Your task to perform on an android device: all mails in gmail Image 0: 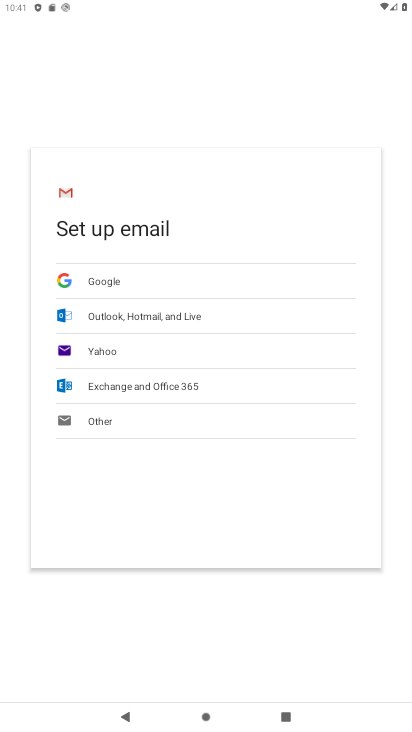
Step 0: press home button
Your task to perform on an android device: all mails in gmail Image 1: 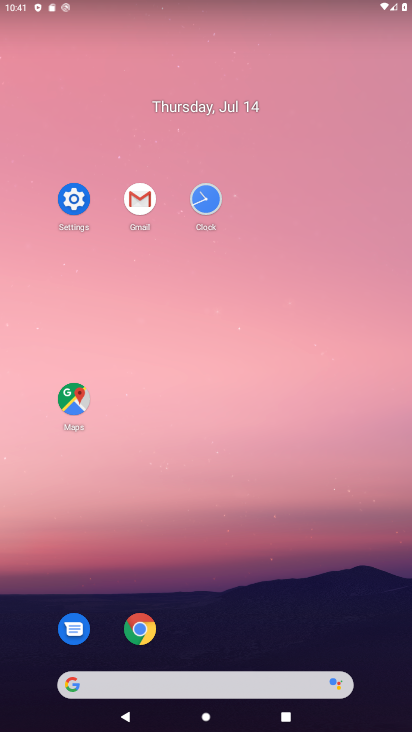
Step 1: click (131, 195)
Your task to perform on an android device: all mails in gmail Image 2: 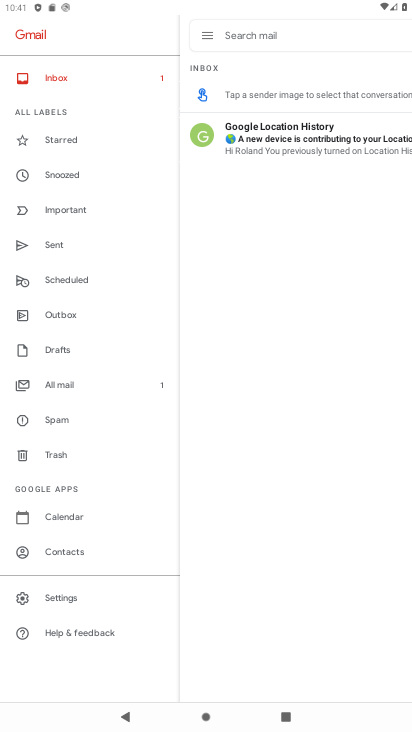
Step 2: click (71, 379)
Your task to perform on an android device: all mails in gmail Image 3: 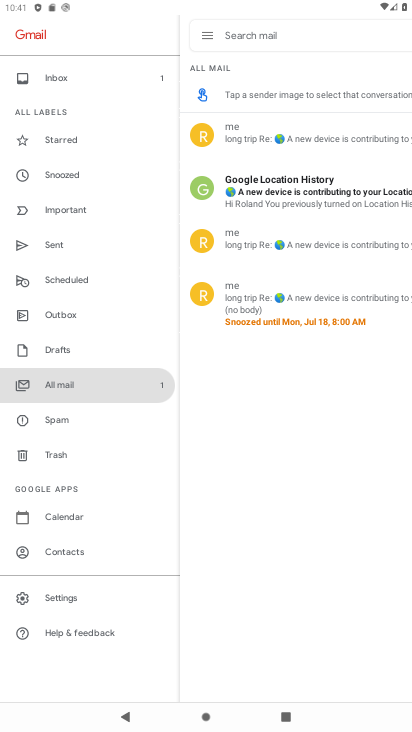
Step 3: task complete